Your task to perform on an android device: add a label to a message in the gmail app Image 0: 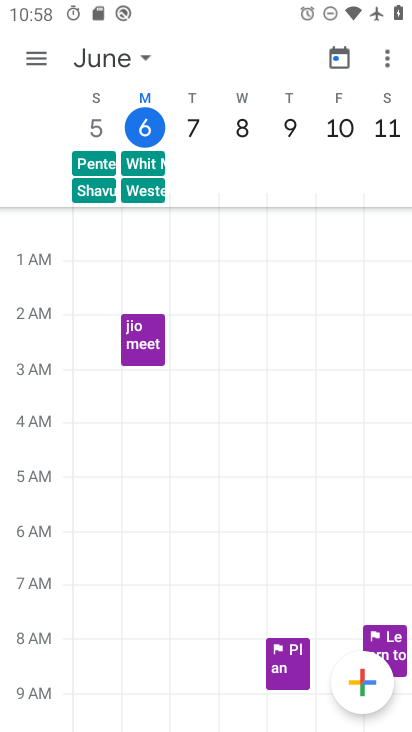
Step 0: press home button
Your task to perform on an android device: add a label to a message in the gmail app Image 1: 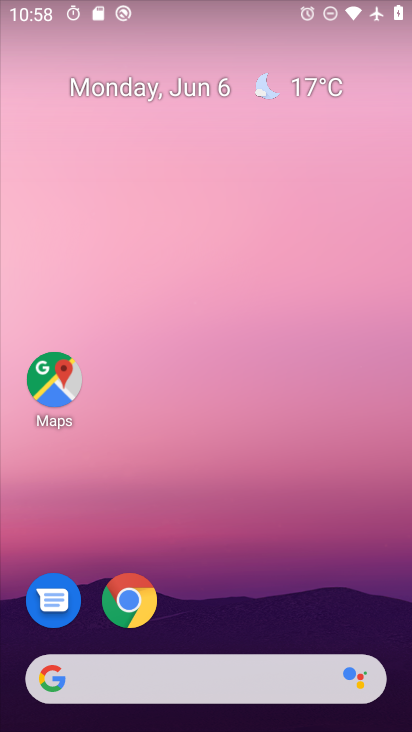
Step 1: drag from (293, 594) to (201, 44)
Your task to perform on an android device: add a label to a message in the gmail app Image 2: 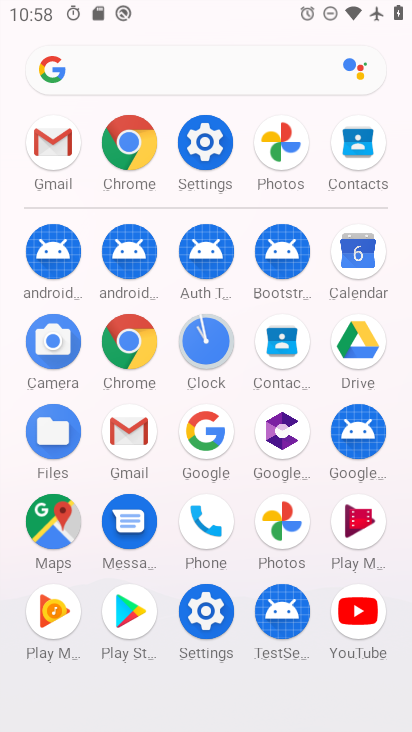
Step 2: click (127, 434)
Your task to perform on an android device: add a label to a message in the gmail app Image 3: 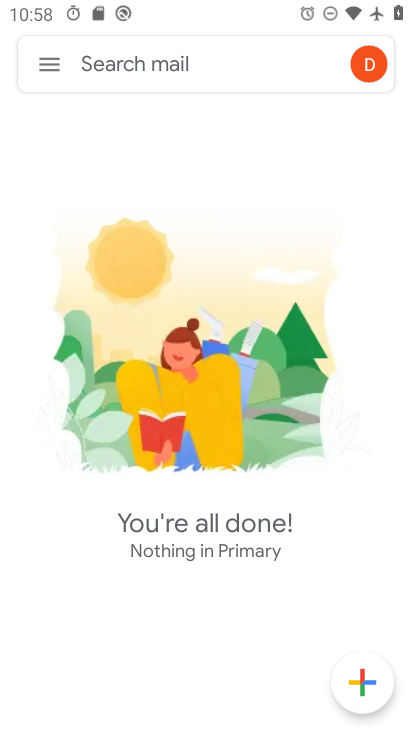
Step 3: click (53, 64)
Your task to perform on an android device: add a label to a message in the gmail app Image 4: 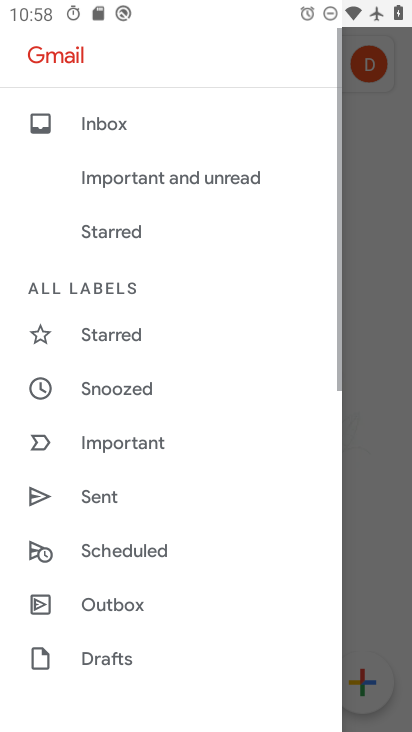
Step 4: click (124, 123)
Your task to perform on an android device: add a label to a message in the gmail app Image 5: 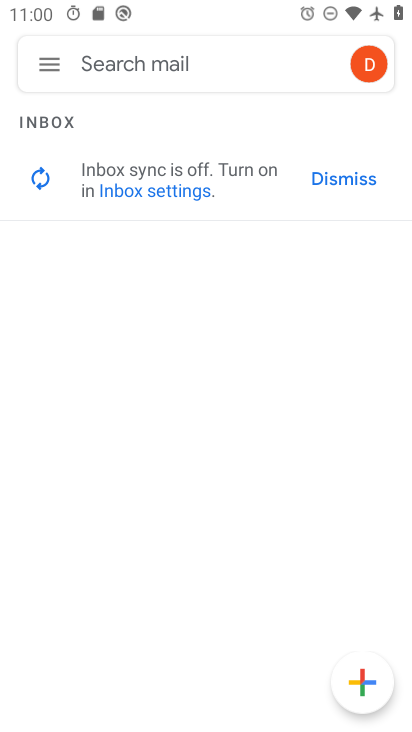
Step 5: task complete